Your task to perform on an android device: open app "Google Keep" (install if not already installed) Image 0: 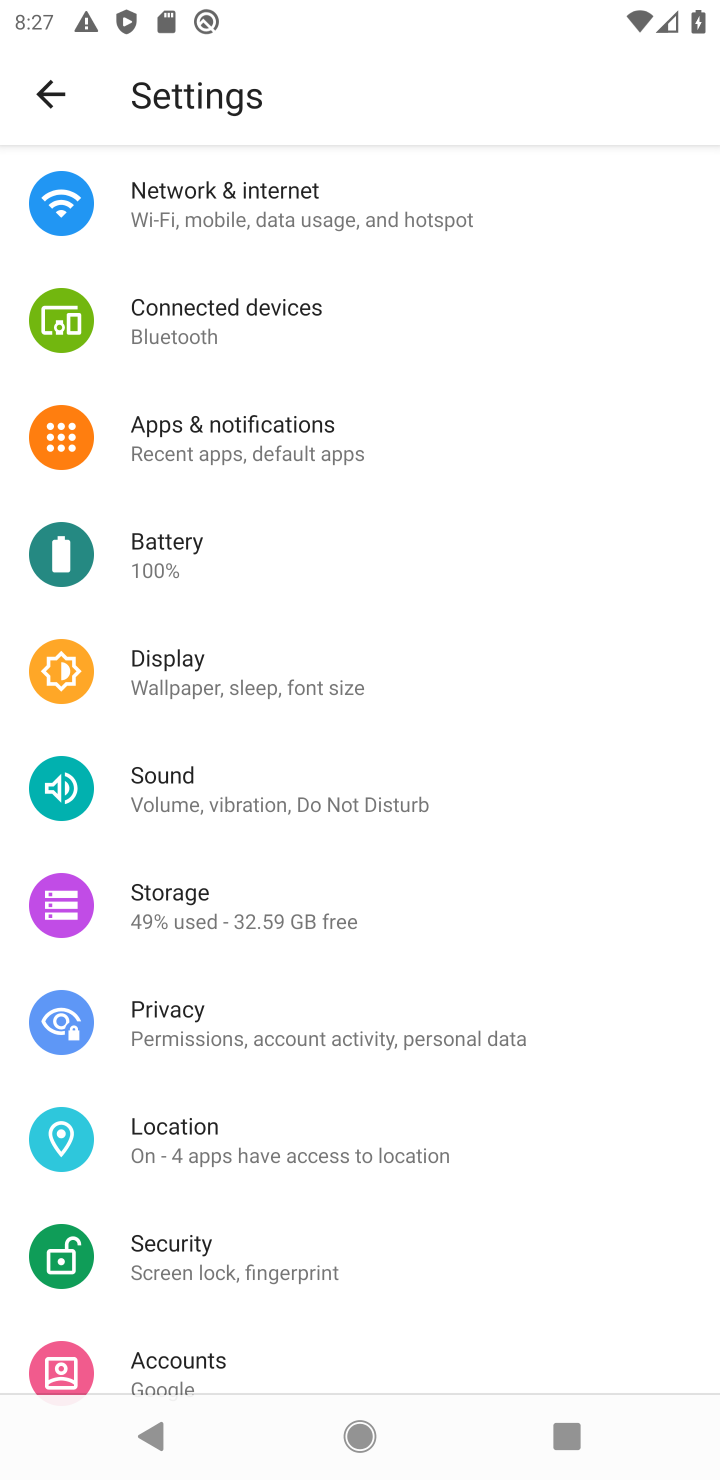
Step 0: press home button
Your task to perform on an android device: open app "Google Keep" (install if not already installed) Image 1: 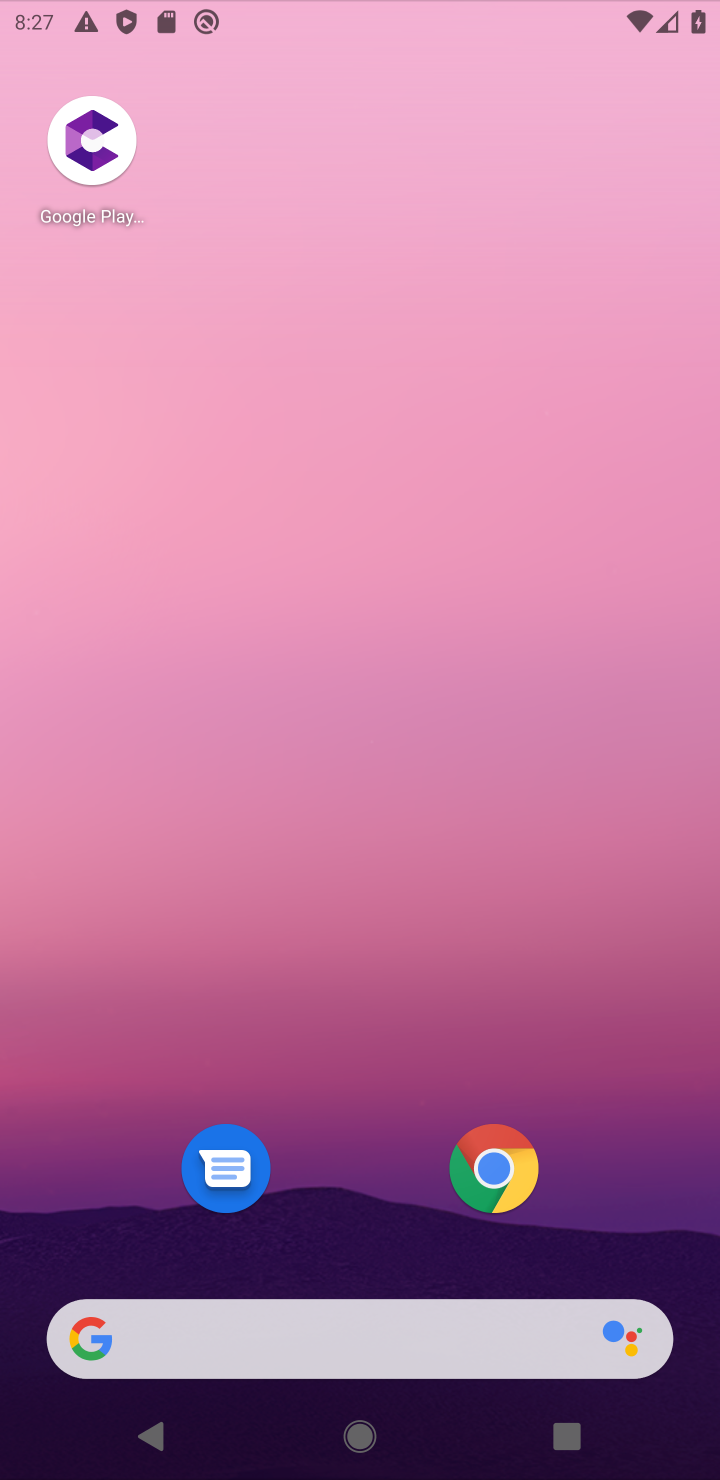
Step 1: drag from (302, 1354) to (578, 46)
Your task to perform on an android device: open app "Google Keep" (install if not already installed) Image 2: 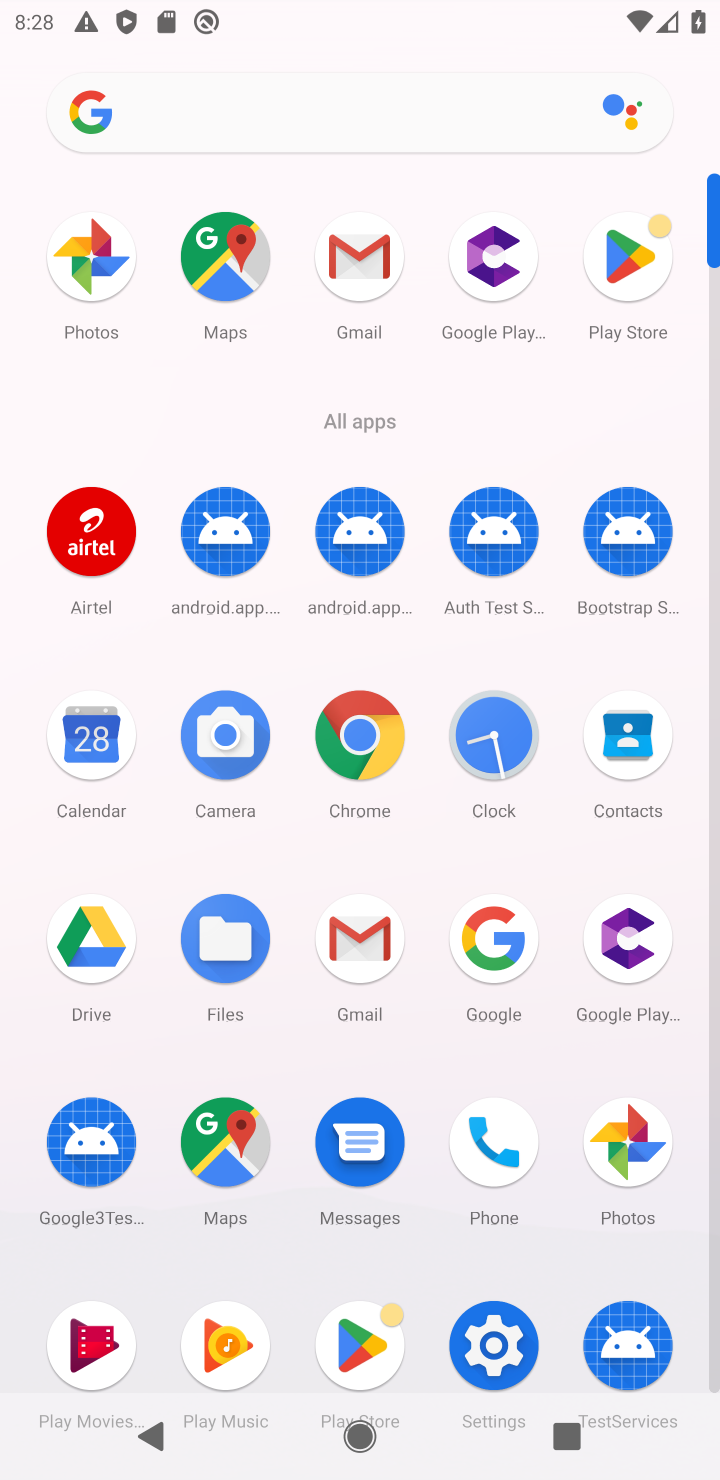
Step 2: click (359, 1342)
Your task to perform on an android device: open app "Google Keep" (install if not already installed) Image 3: 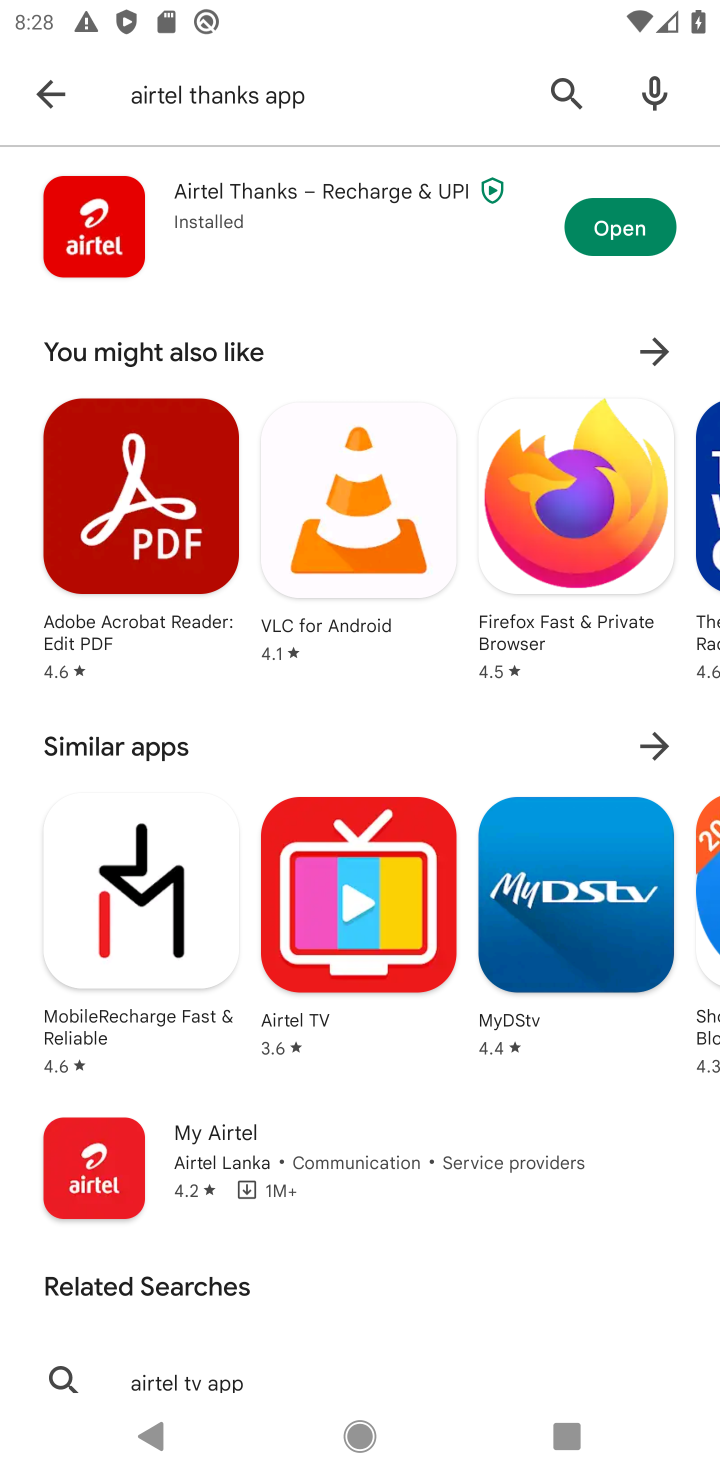
Step 3: click (573, 92)
Your task to perform on an android device: open app "Google Keep" (install if not already installed) Image 4: 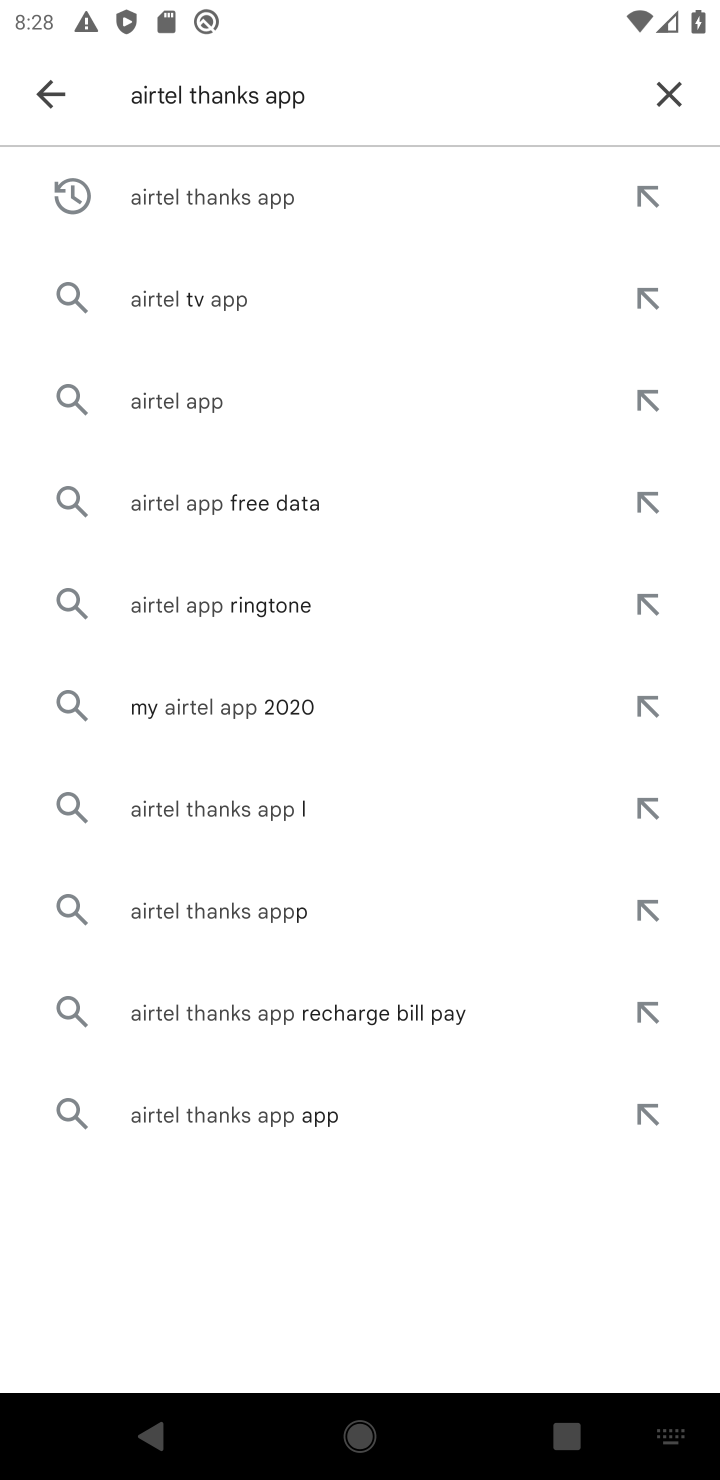
Step 4: click (674, 94)
Your task to perform on an android device: open app "Google Keep" (install if not already installed) Image 5: 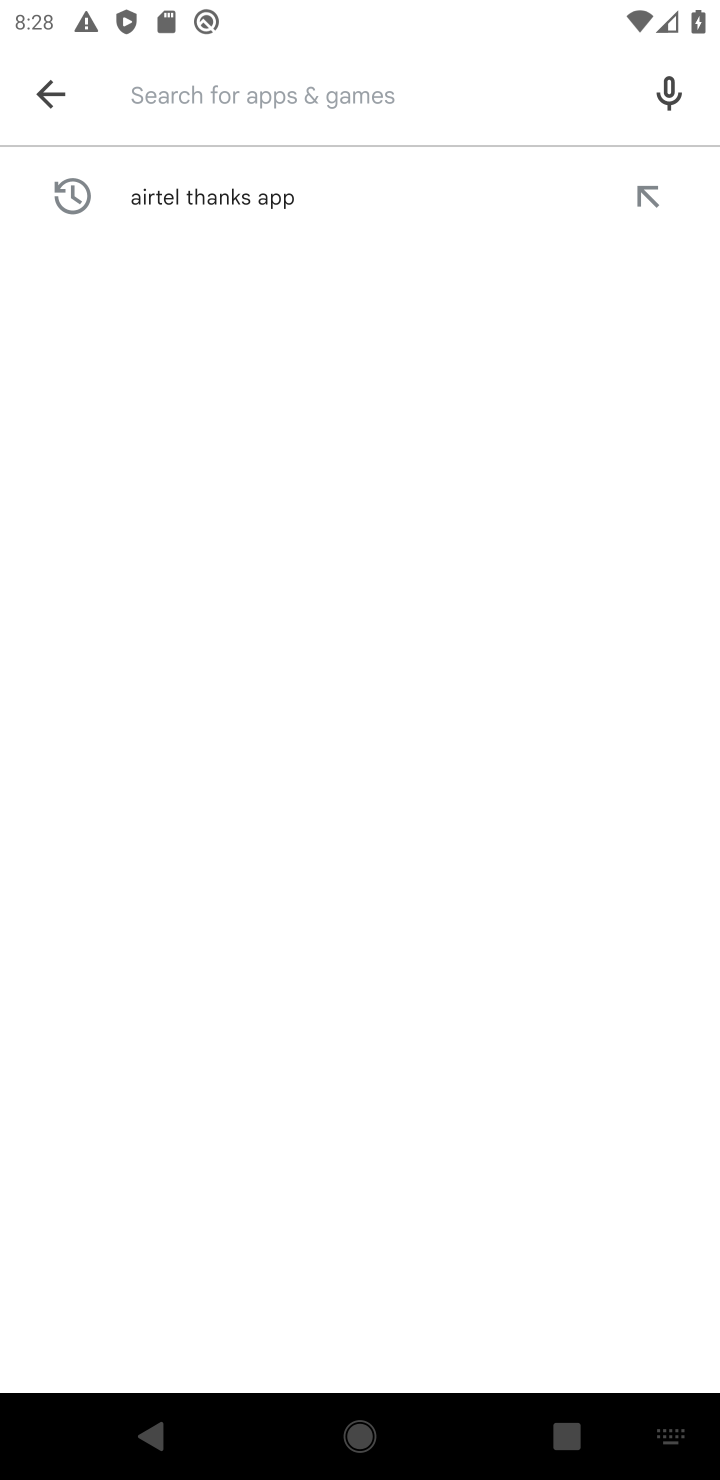
Step 5: type "google keep"
Your task to perform on an android device: open app "Google Keep" (install if not already installed) Image 6: 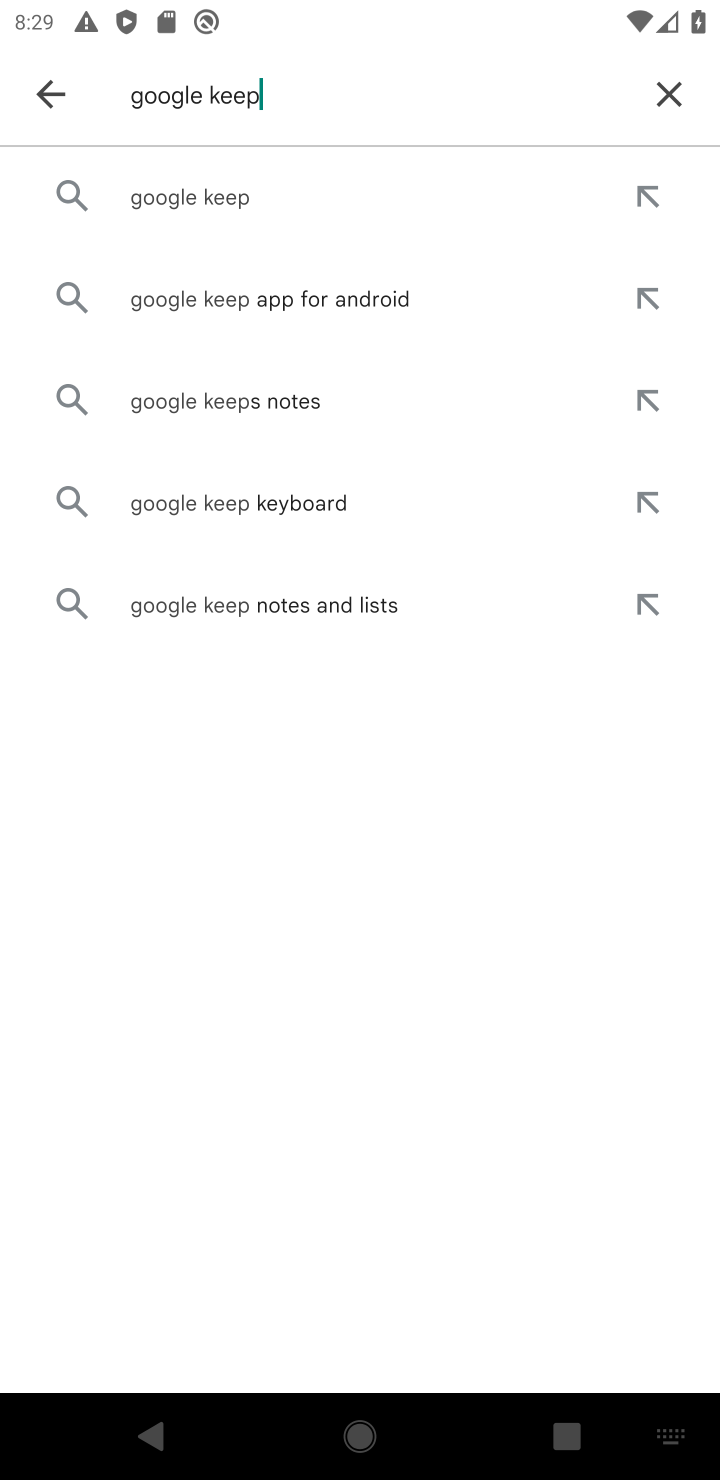
Step 6: click (267, 193)
Your task to perform on an android device: open app "Google Keep" (install if not already installed) Image 7: 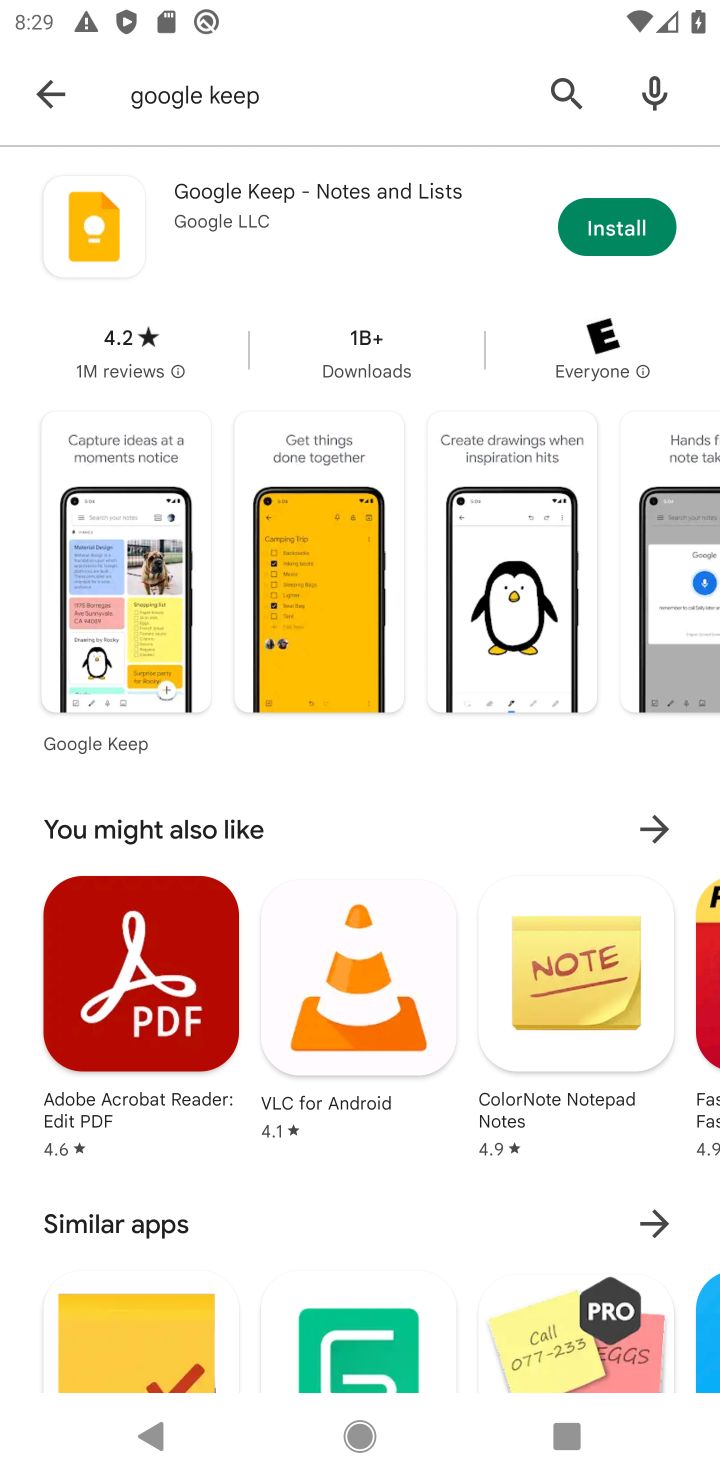
Step 7: click (641, 221)
Your task to perform on an android device: open app "Google Keep" (install if not already installed) Image 8: 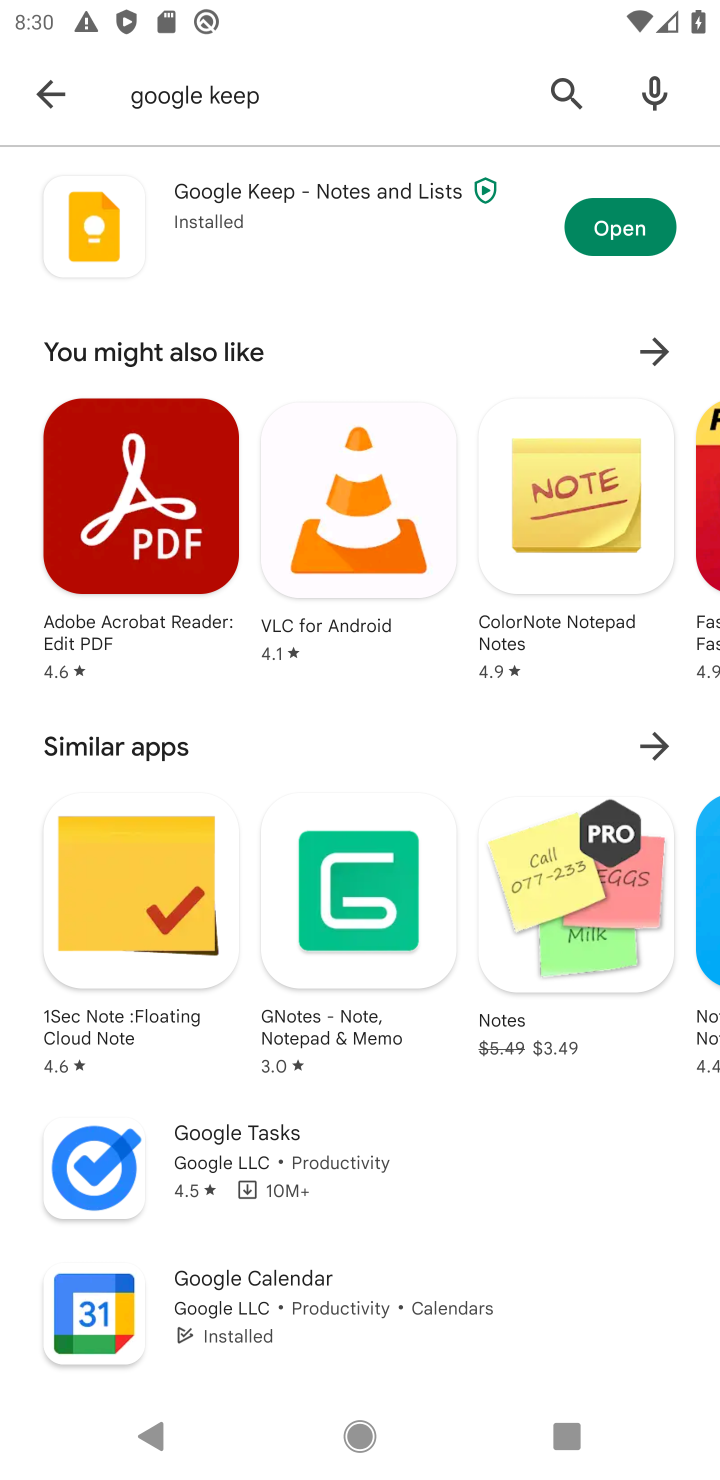
Step 8: click (657, 236)
Your task to perform on an android device: open app "Google Keep" (install if not already installed) Image 9: 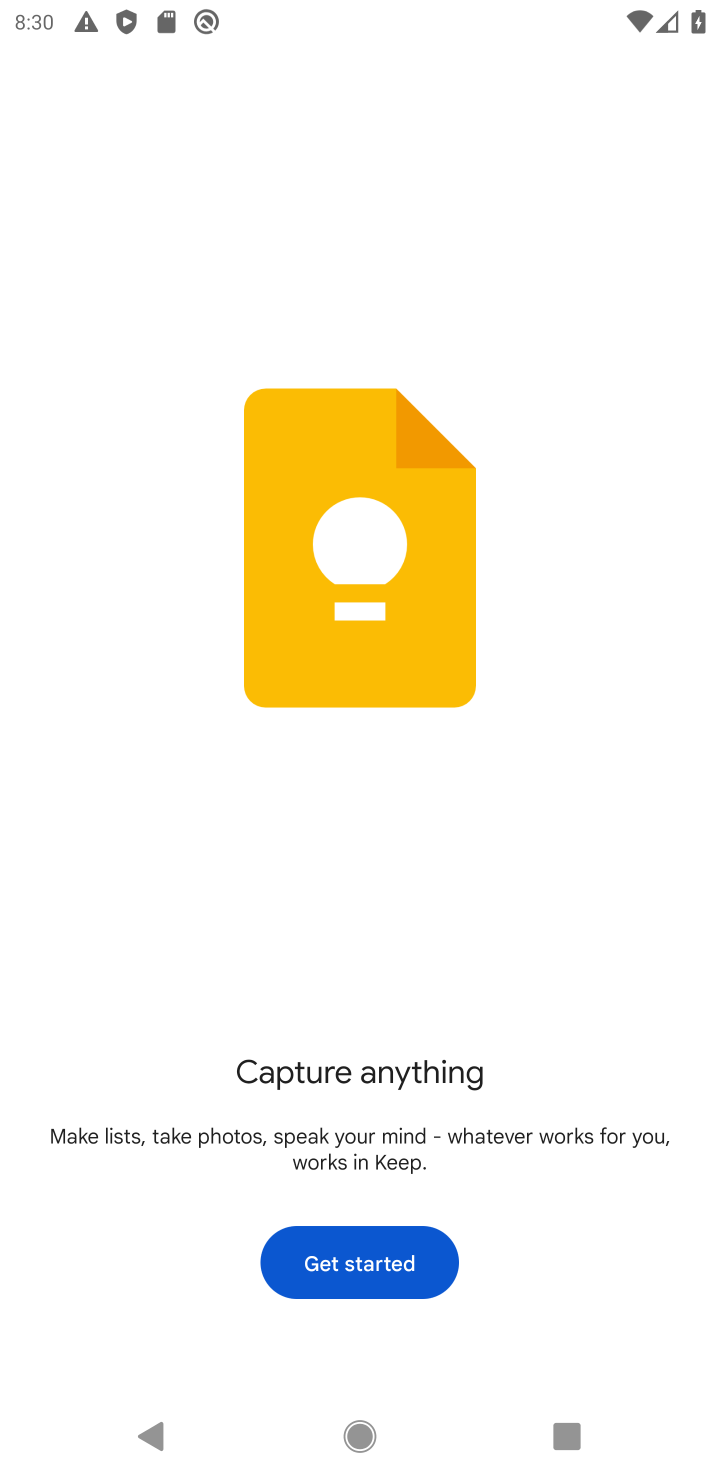
Step 9: task complete